Your task to perform on an android device: delete browsing data in the chrome app Image 0: 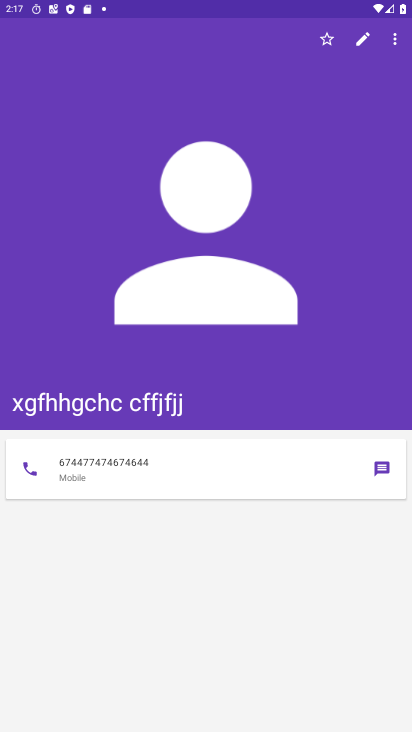
Step 0: press home button
Your task to perform on an android device: delete browsing data in the chrome app Image 1: 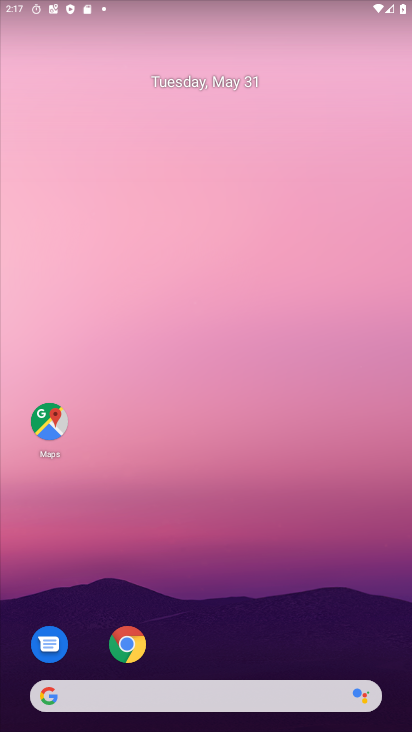
Step 1: drag from (396, 675) to (410, 59)
Your task to perform on an android device: delete browsing data in the chrome app Image 2: 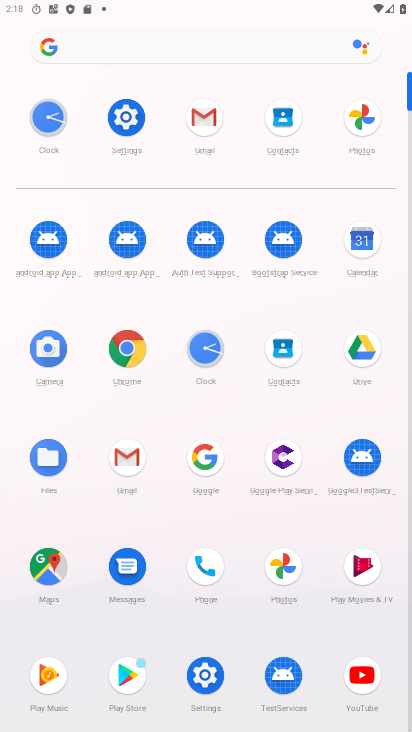
Step 2: click (133, 351)
Your task to perform on an android device: delete browsing data in the chrome app Image 3: 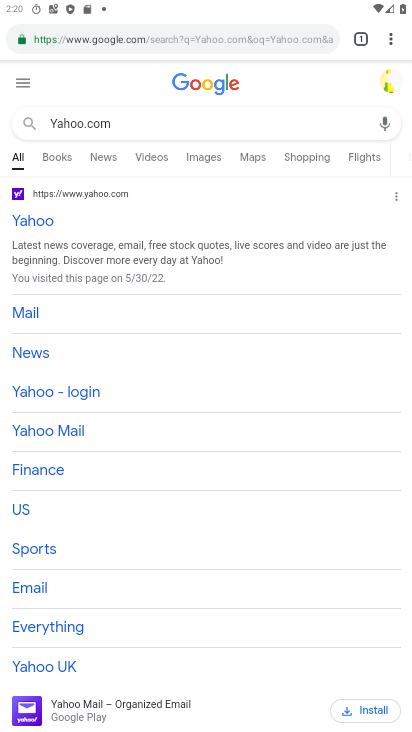
Step 3: click (388, 37)
Your task to perform on an android device: delete browsing data in the chrome app Image 4: 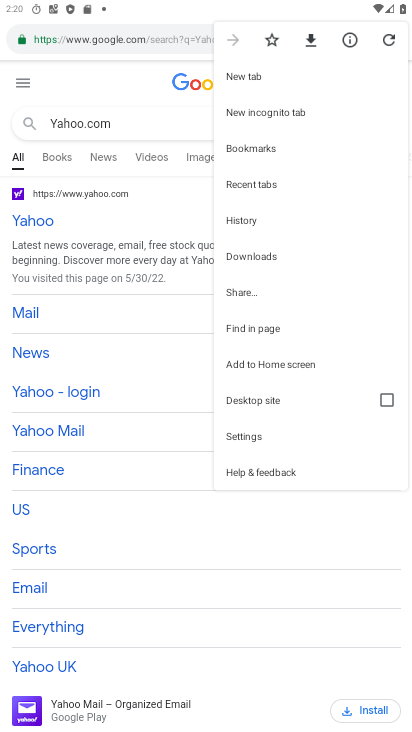
Step 4: click (251, 223)
Your task to perform on an android device: delete browsing data in the chrome app Image 5: 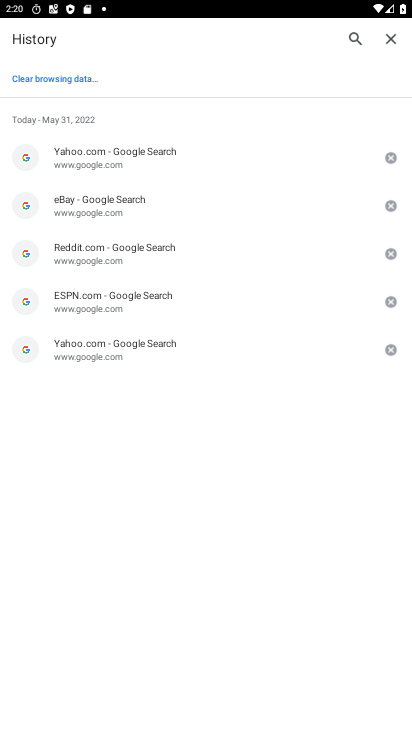
Step 5: click (36, 76)
Your task to perform on an android device: delete browsing data in the chrome app Image 6: 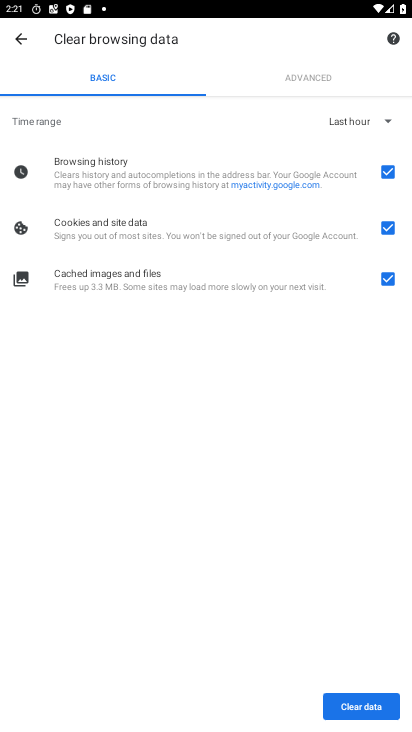
Step 6: click (353, 696)
Your task to perform on an android device: delete browsing data in the chrome app Image 7: 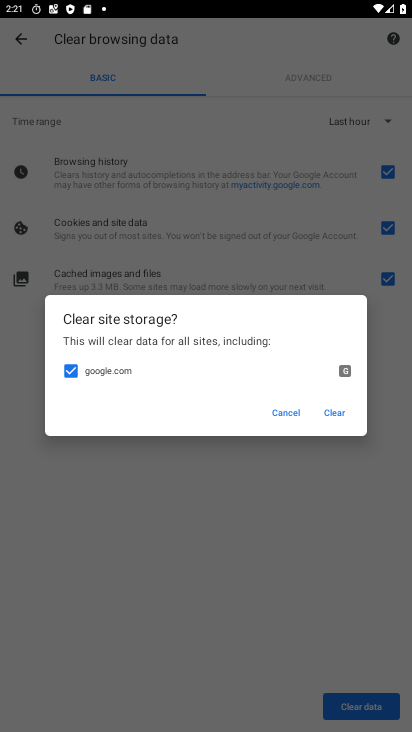
Step 7: click (325, 412)
Your task to perform on an android device: delete browsing data in the chrome app Image 8: 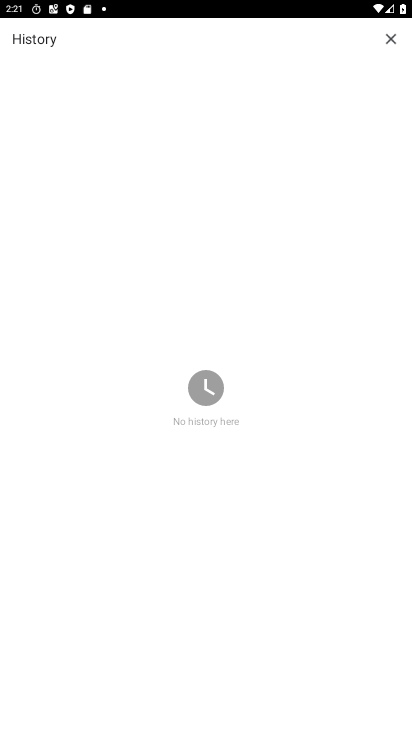
Step 8: task complete